Your task to perform on an android device: Go to Google maps Image 0: 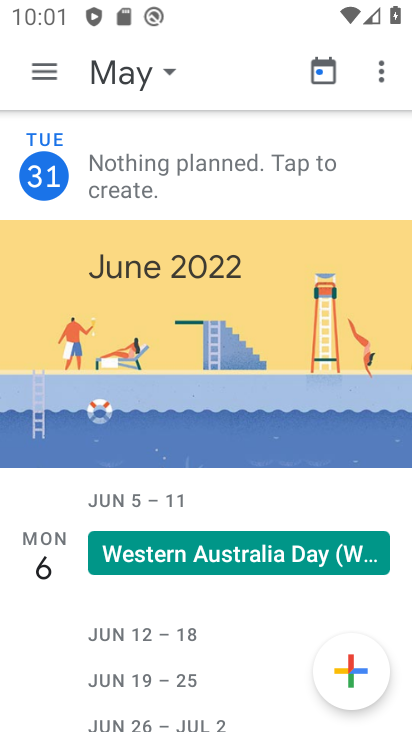
Step 0: press home button
Your task to perform on an android device: Go to Google maps Image 1: 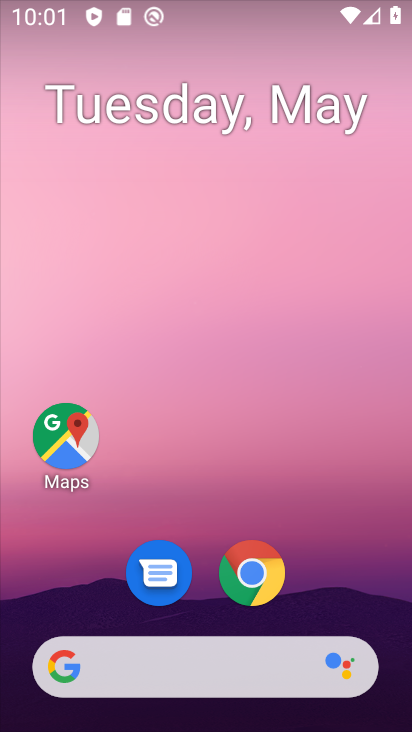
Step 1: click (74, 441)
Your task to perform on an android device: Go to Google maps Image 2: 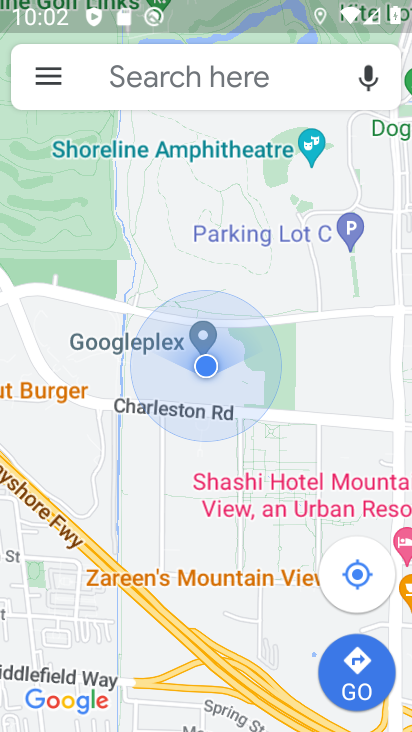
Step 2: task complete